Your task to perform on an android device: Open the Play Movies app and select the watchlist tab. Image 0: 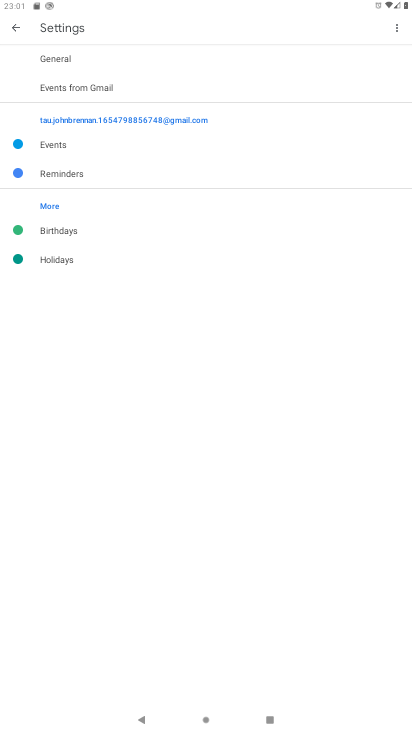
Step 0: press home button
Your task to perform on an android device: Open the Play Movies app and select the watchlist tab. Image 1: 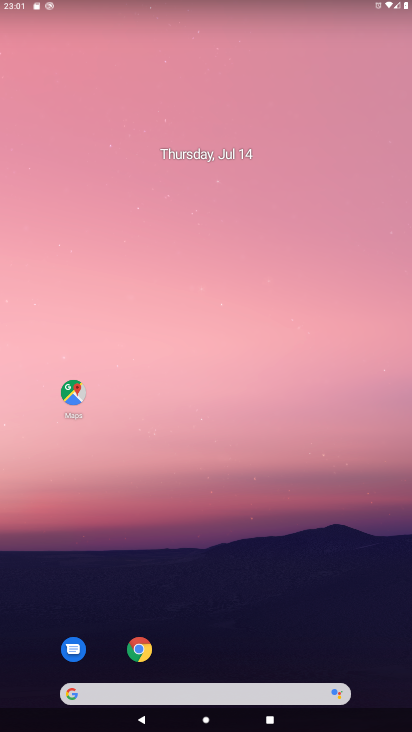
Step 1: drag from (220, 723) to (264, 118)
Your task to perform on an android device: Open the Play Movies app and select the watchlist tab. Image 2: 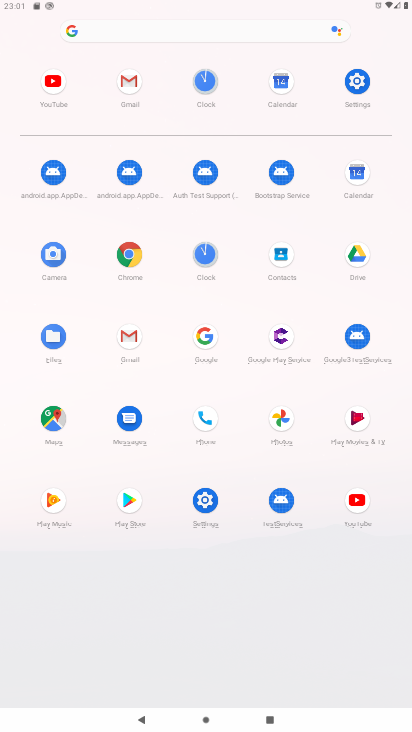
Step 2: click (351, 420)
Your task to perform on an android device: Open the Play Movies app and select the watchlist tab. Image 3: 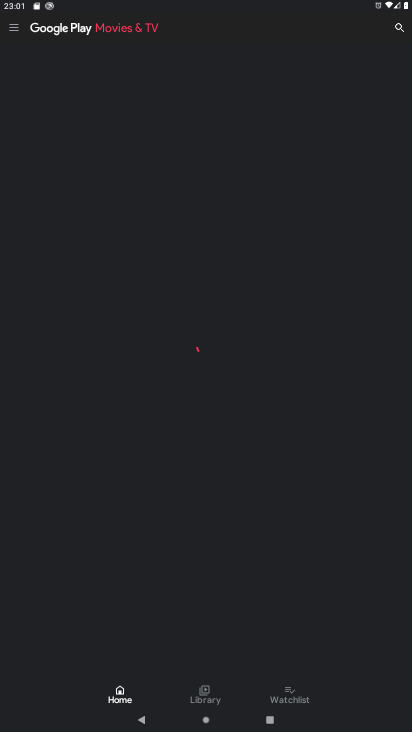
Step 3: click (301, 694)
Your task to perform on an android device: Open the Play Movies app and select the watchlist tab. Image 4: 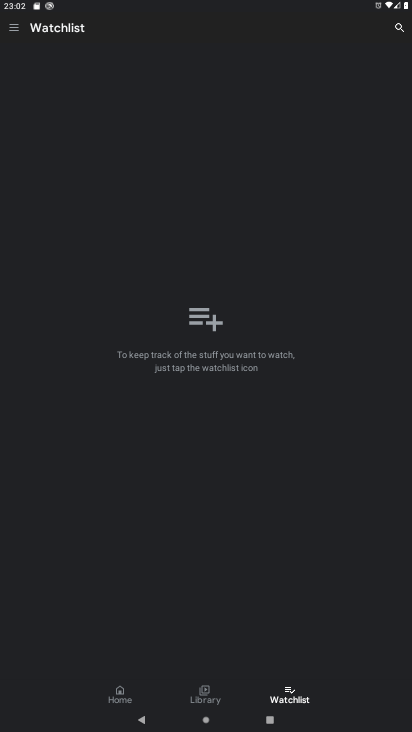
Step 4: task complete